Your task to perform on an android device: change the clock display to analog Image 0: 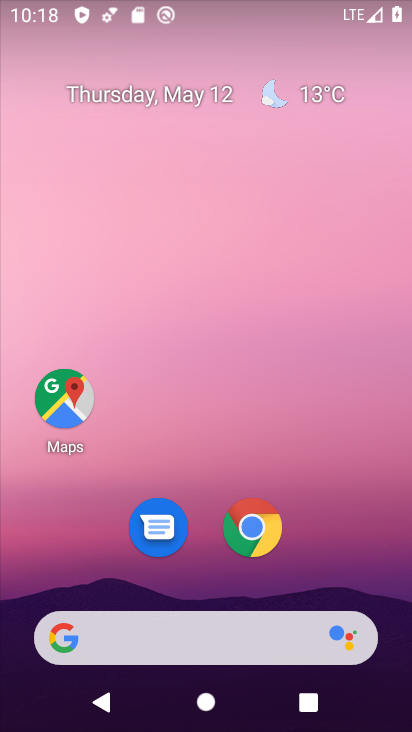
Step 0: drag from (350, 554) to (362, 131)
Your task to perform on an android device: change the clock display to analog Image 1: 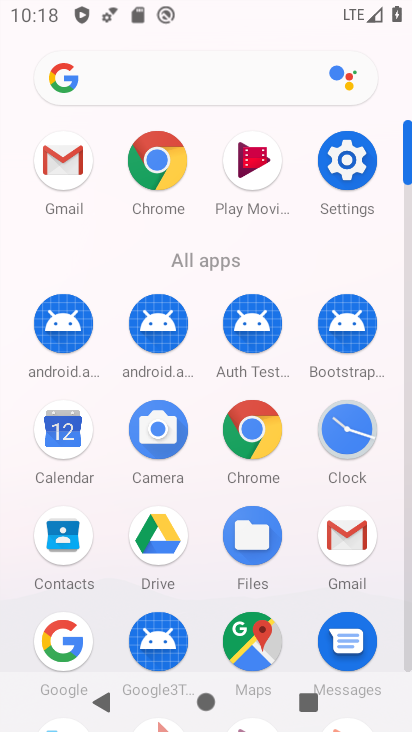
Step 1: click (346, 413)
Your task to perform on an android device: change the clock display to analog Image 2: 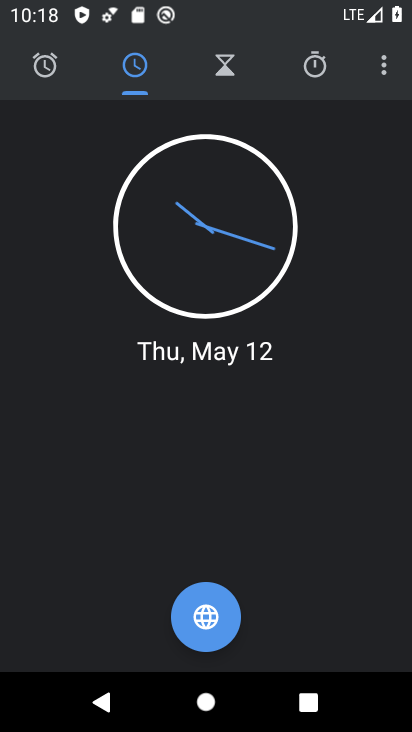
Step 2: click (383, 61)
Your task to perform on an android device: change the clock display to analog Image 3: 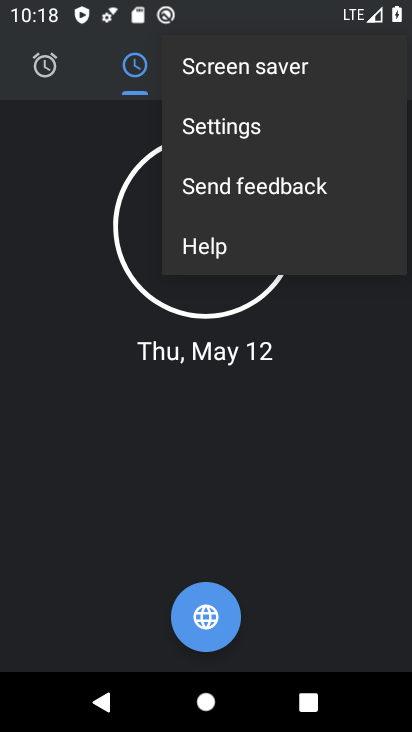
Step 3: click (227, 118)
Your task to perform on an android device: change the clock display to analog Image 4: 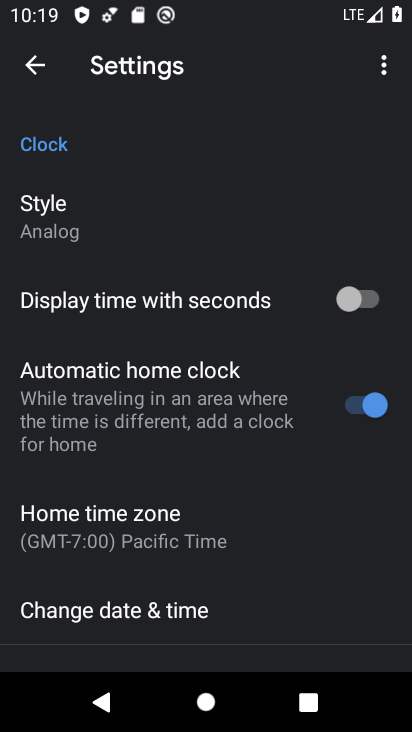
Step 4: click (50, 225)
Your task to perform on an android device: change the clock display to analog Image 5: 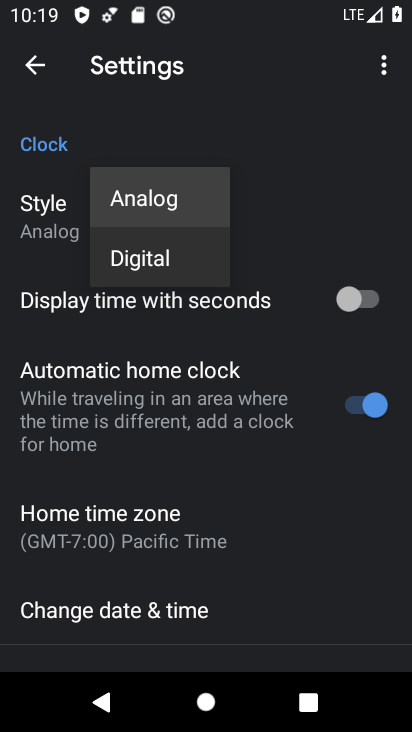
Step 5: click (110, 199)
Your task to perform on an android device: change the clock display to analog Image 6: 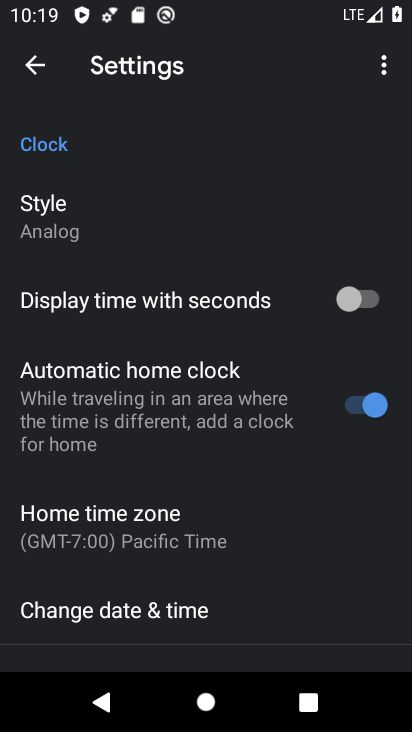
Step 6: task complete